Your task to perform on an android device: toggle notification dots Image 0: 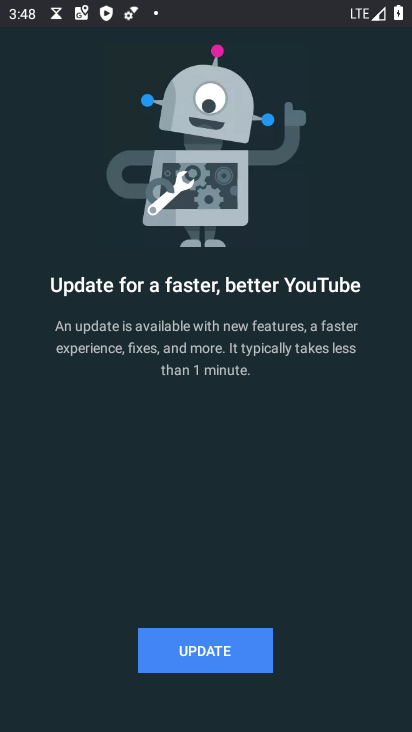
Step 0: press home button
Your task to perform on an android device: toggle notification dots Image 1: 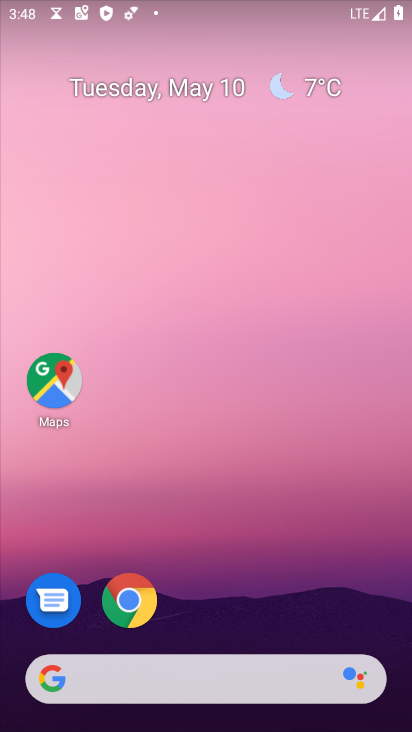
Step 1: click (129, 595)
Your task to perform on an android device: toggle notification dots Image 2: 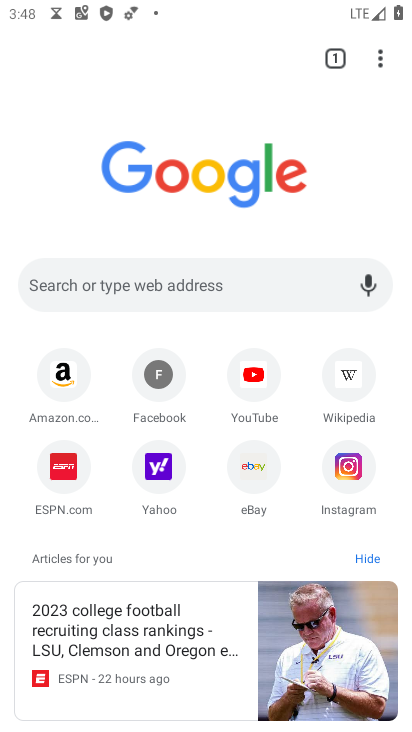
Step 2: click (378, 54)
Your task to perform on an android device: toggle notification dots Image 3: 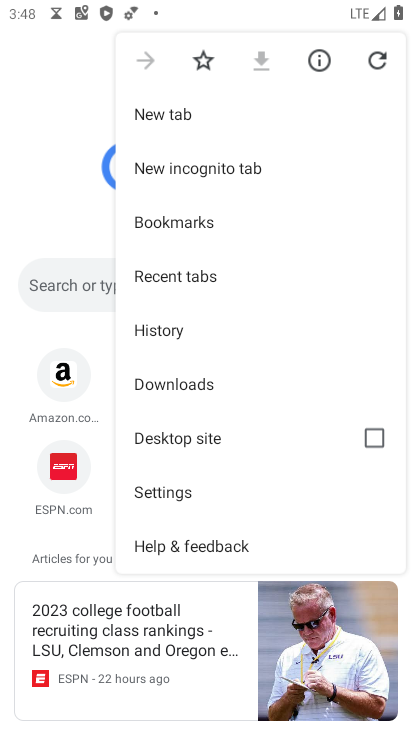
Step 3: click (197, 499)
Your task to perform on an android device: toggle notification dots Image 4: 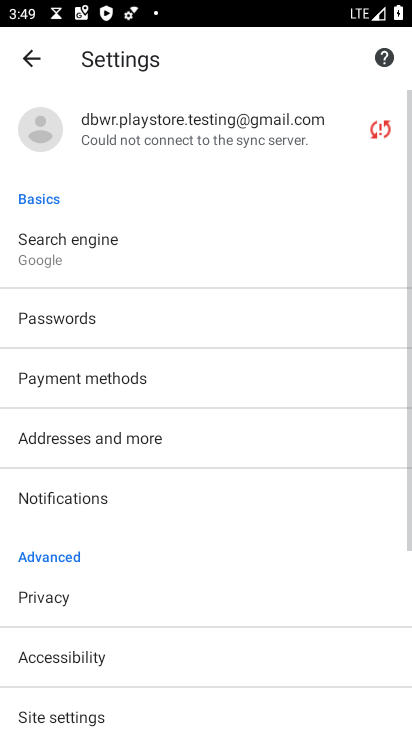
Step 4: drag from (197, 609) to (157, 214)
Your task to perform on an android device: toggle notification dots Image 5: 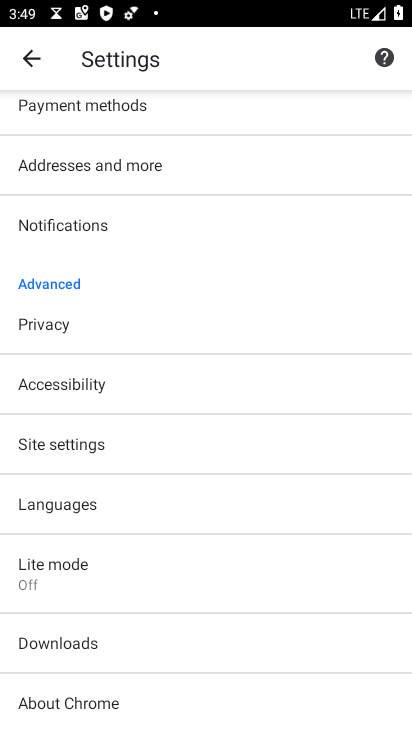
Step 5: click (109, 437)
Your task to perform on an android device: toggle notification dots Image 6: 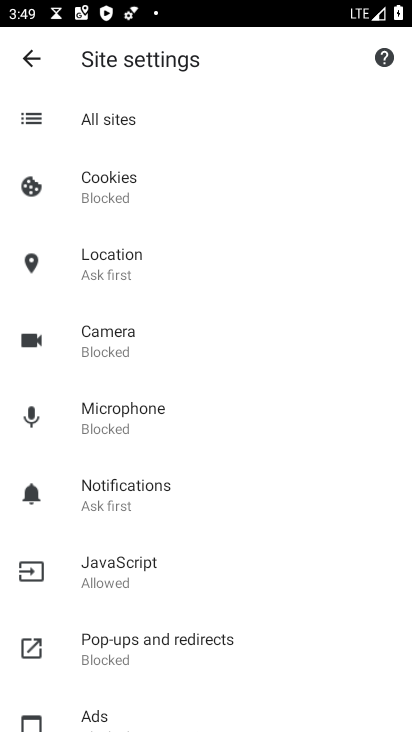
Step 6: task complete